Your task to perform on an android device: turn off translation in the chrome app Image 0: 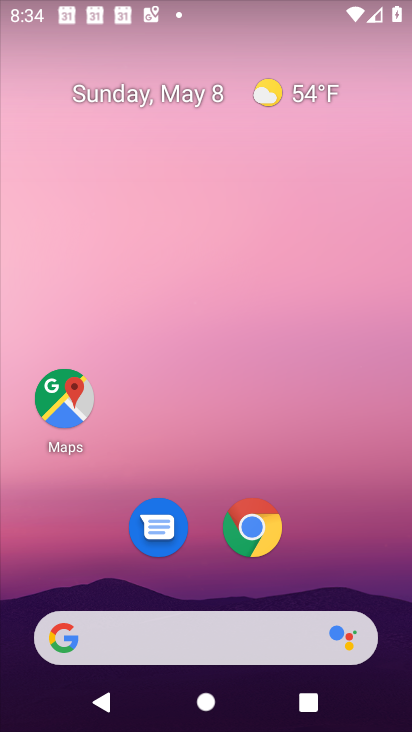
Step 0: click (250, 512)
Your task to perform on an android device: turn off translation in the chrome app Image 1: 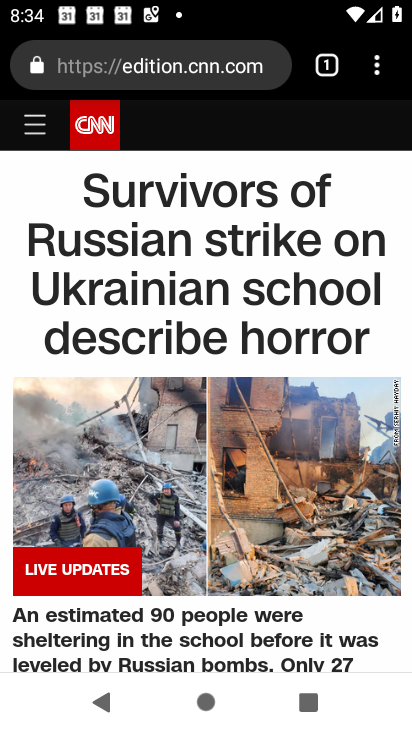
Step 1: click (374, 68)
Your task to perform on an android device: turn off translation in the chrome app Image 2: 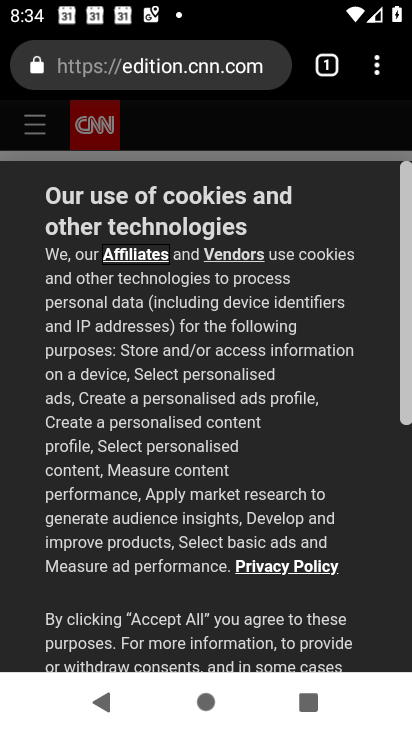
Step 2: click (374, 75)
Your task to perform on an android device: turn off translation in the chrome app Image 3: 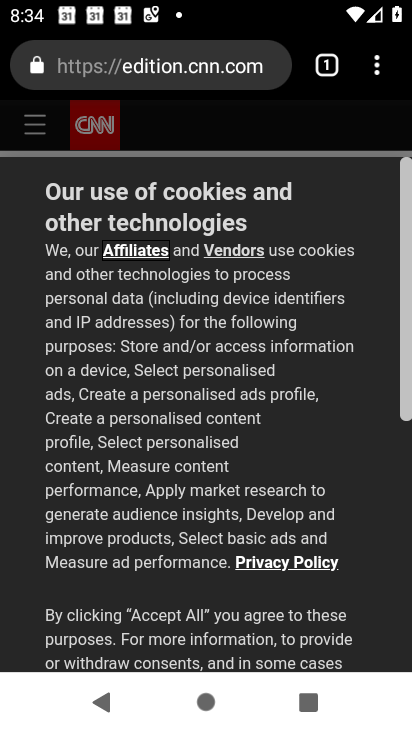
Step 3: click (374, 75)
Your task to perform on an android device: turn off translation in the chrome app Image 4: 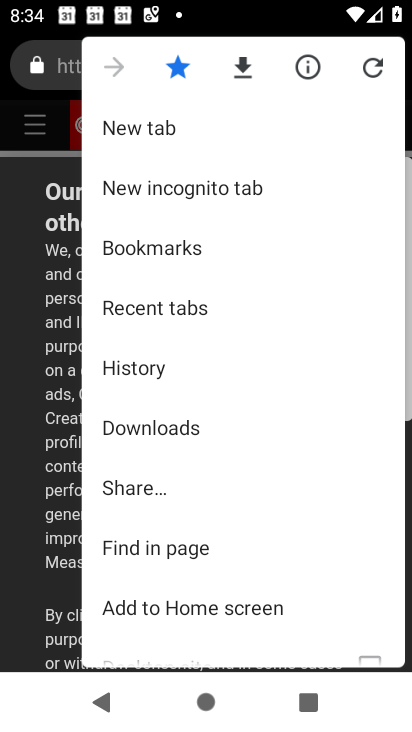
Step 4: drag from (247, 596) to (212, 434)
Your task to perform on an android device: turn off translation in the chrome app Image 5: 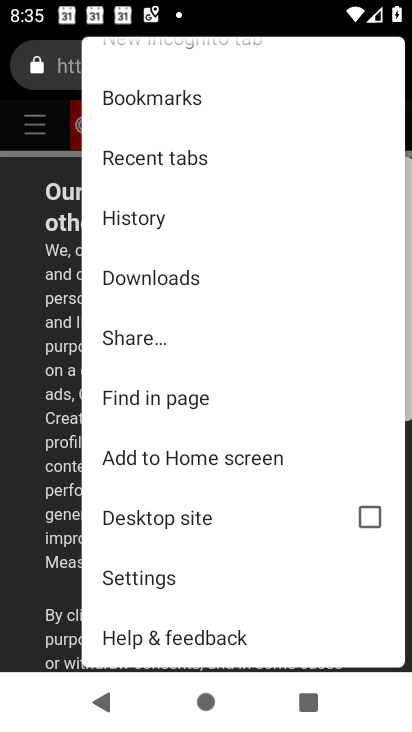
Step 5: click (196, 592)
Your task to perform on an android device: turn off translation in the chrome app Image 6: 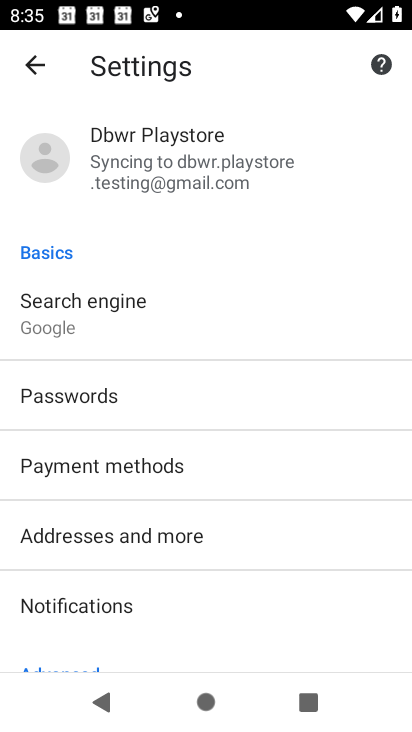
Step 6: drag from (163, 624) to (157, 493)
Your task to perform on an android device: turn off translation in the chrome app Image 7: 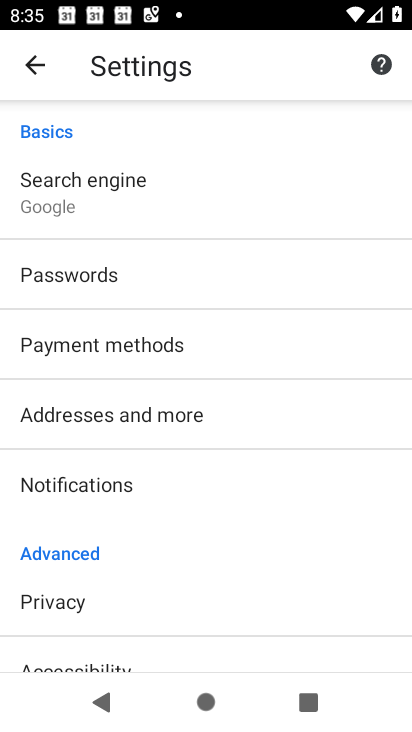
Step 7: drag from (186, 593) to (175, 482)
Your task to perform on an android device: turn off translation in the chrome app Image 8: 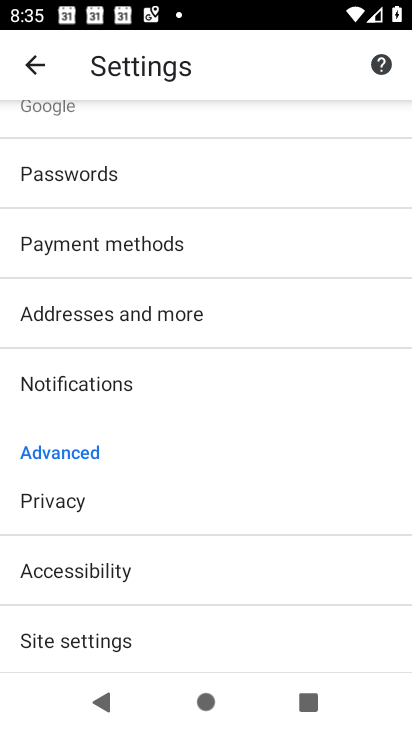
Step 8: drag from (174, 588) to (174, 479)
Your task to perform on an android device: turn off translation in the chrome app Image 9: 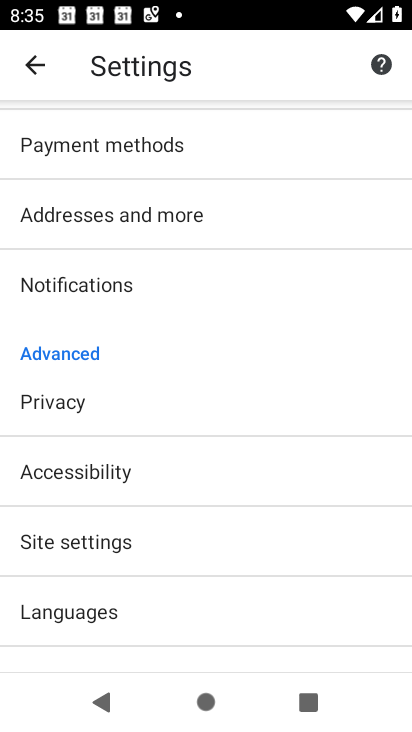
Step 9: click (149, 621)
Your task to perform on an android device: turn off translation in the chrome app Image 10: 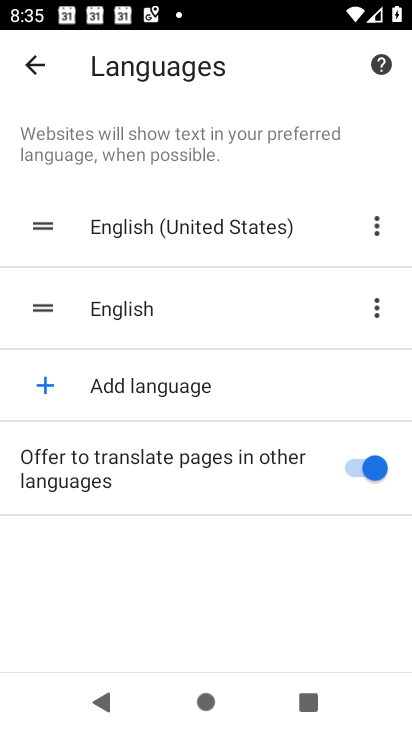
Step 10: click (345, 470)
Your task to perform on an android device: turn off translation in the chrome app Image 11: 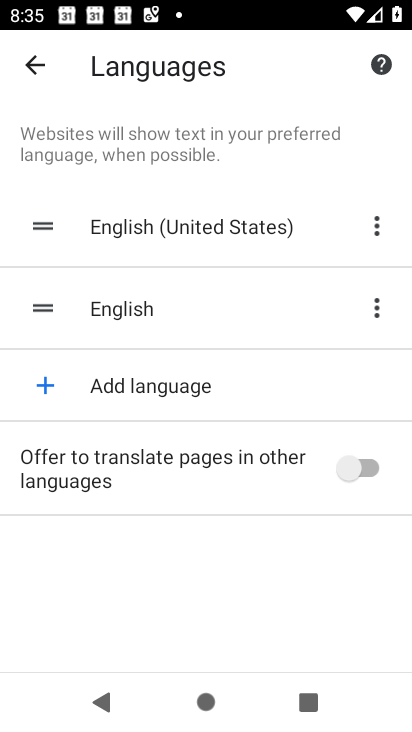
Step 11: task complete